Your task to perform on an android device: change keyboard looks Image 0: 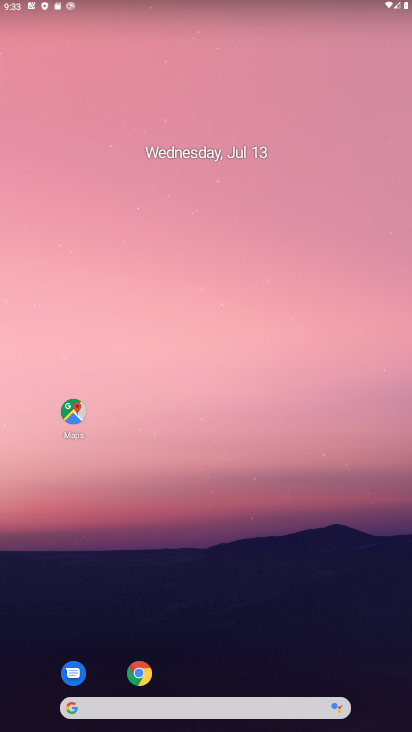
Step 0: drag from (191, 672) to (263, 53)
Your task to perform on an android device: change keyboard looks Image 1: 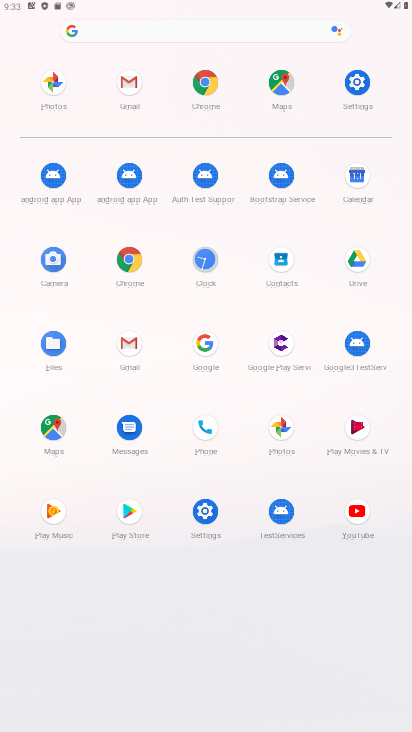
Step 1: click (343, 81)
Your task to perform on an android device: change keyboard looks Image 2: 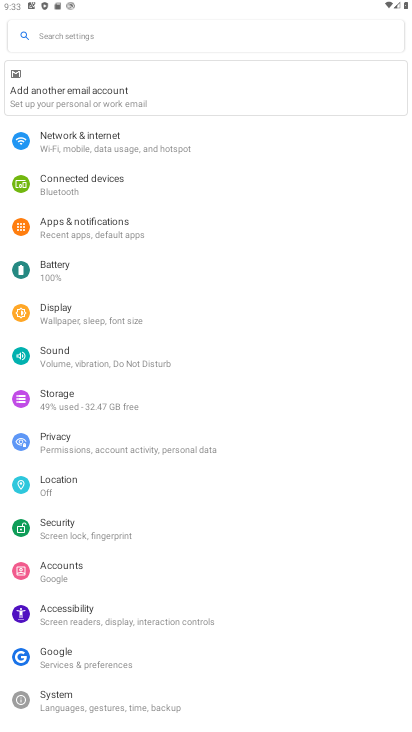
Step 2: click (125, 704)
Your task to perform on an android device: change keyboard looks Image 3: 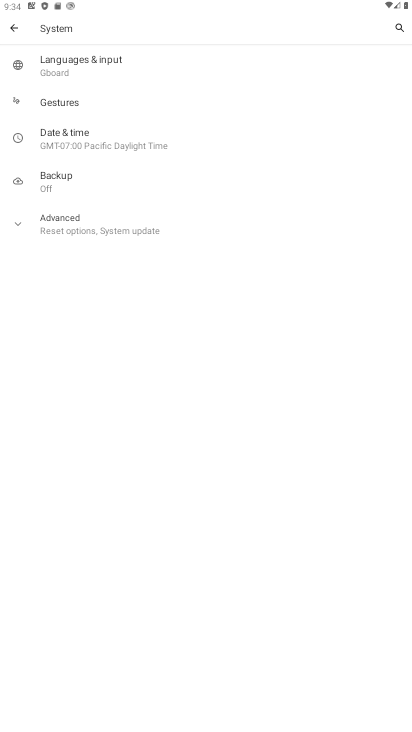
Step 3: click (172, 66)
Your task to perform on an android device: change keyboard looks Image 4: 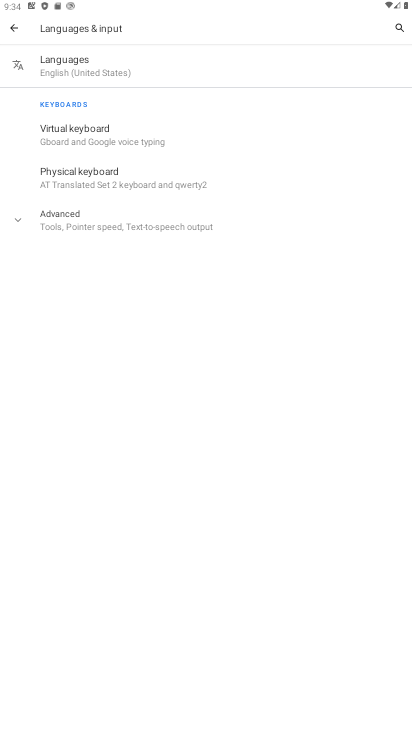
Step 4: click (138, 134)
Your task to perform on an android device: change keyboard looks Image 5: 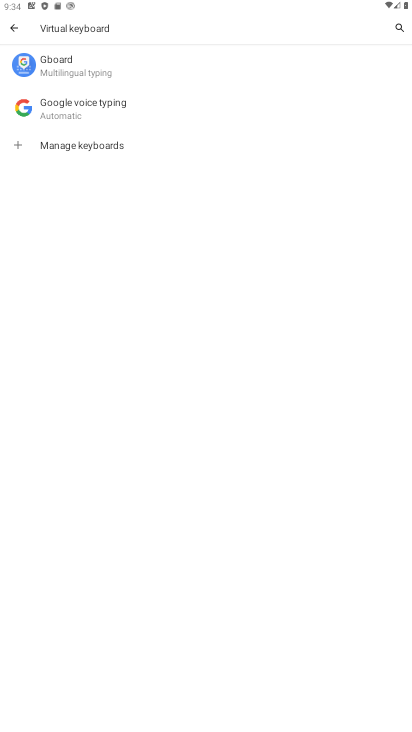
Step 5: click (128, 72)
Your task to perform on an android device: change keyboard looks Image 6: 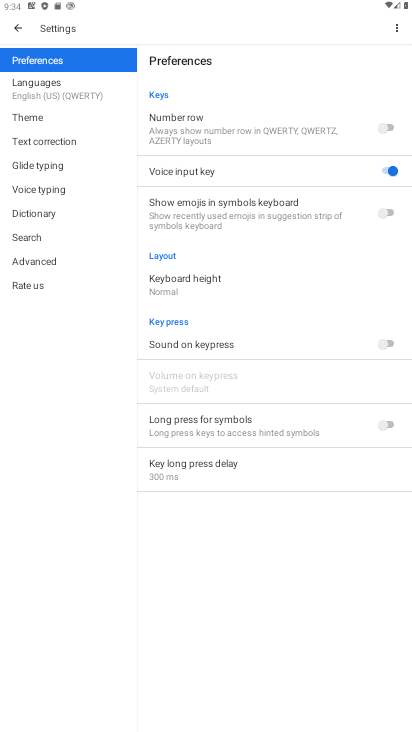
Step 6: click (14, 118)
Your task to perform on an android device: change keyboard looks Image 7: 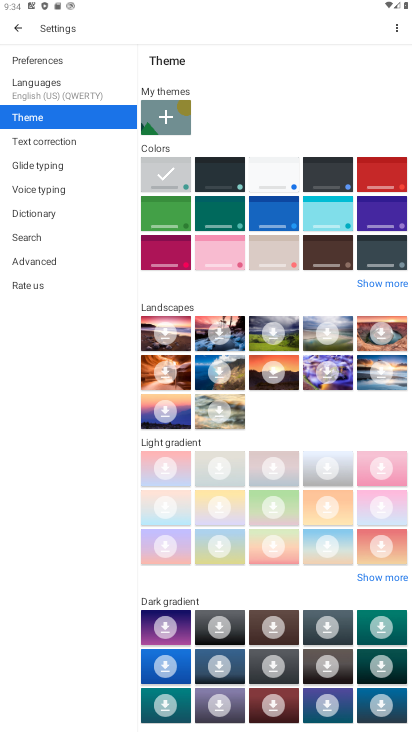
Step 7: click (269, 546)
Your task to perform on an android device: change keyboard looks Image 8: 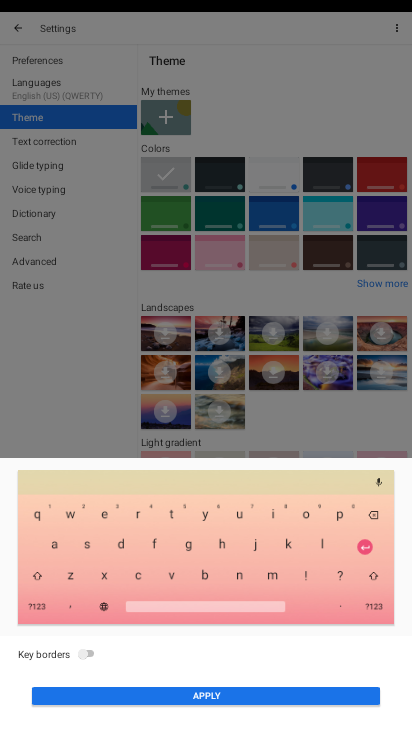
Step 8: click (238, 688)
Your task to perform on an android device: change keyboard looks Image 9: 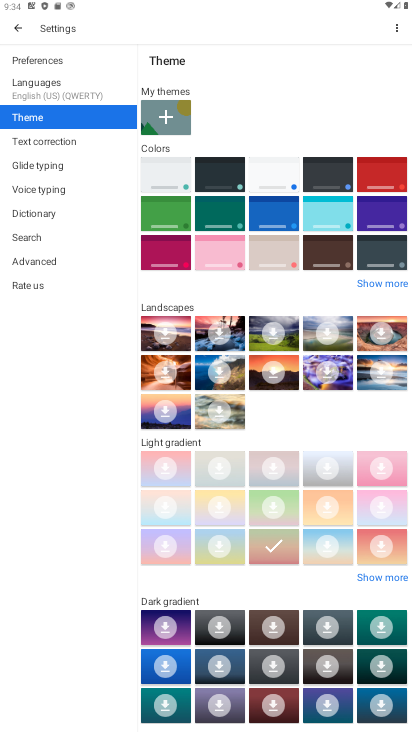
Step 9: task complete